Your task to perform on an android device: turn smart compose on in the gmail app Image 0: 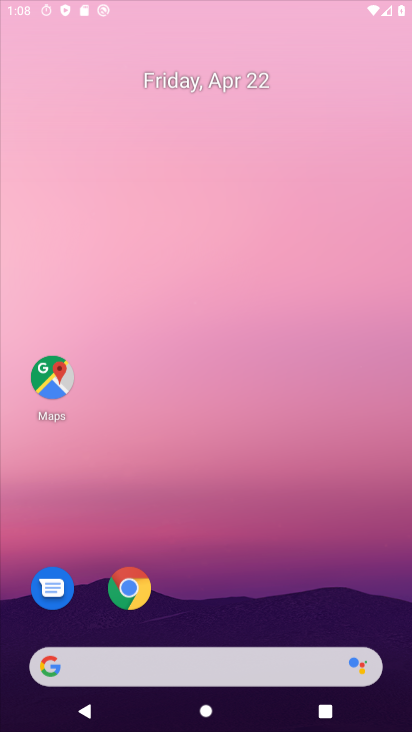
Step 0: click (325, 139)
Your task to perform on an android device: turn smart compose on in the gmail app Image 1: 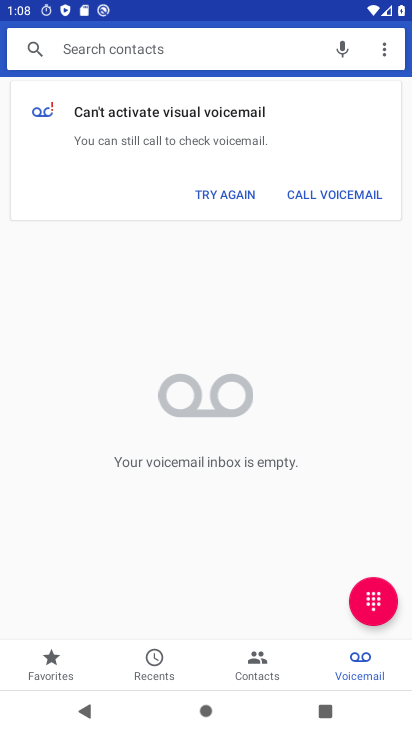
Step 1: press home button
Your task to perform on an android device: turn smart compose on in the gmail app Image 2: 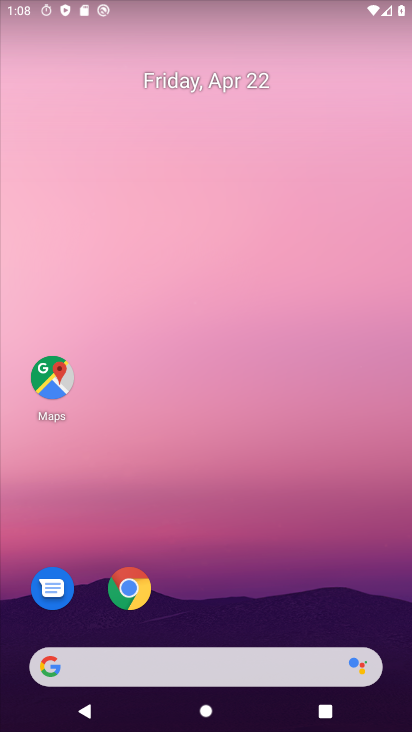
Step 2: drag from (358, 592) to (312, 117)
Your task to perform on an android device: turn smart compose on in the gmail app Image 3: 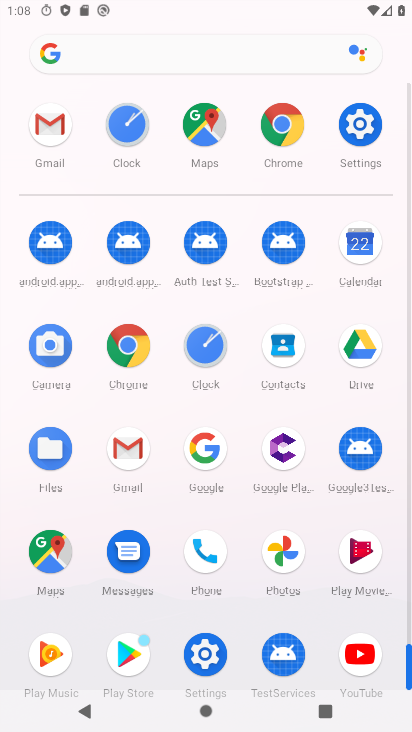
Step 3: click (139, 465)
Your task to perform on an android device: turn smart compose on in the gmail app Image 4: 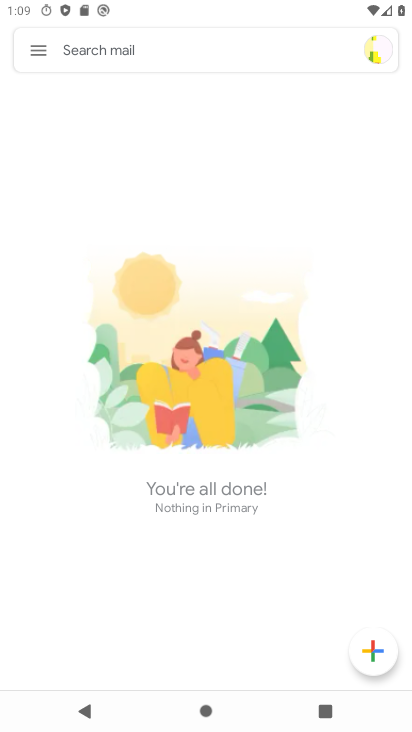
Step 4: click (36, 58)
Your task to perform on an android device: turn smart compose on in the gmail app Image 5: 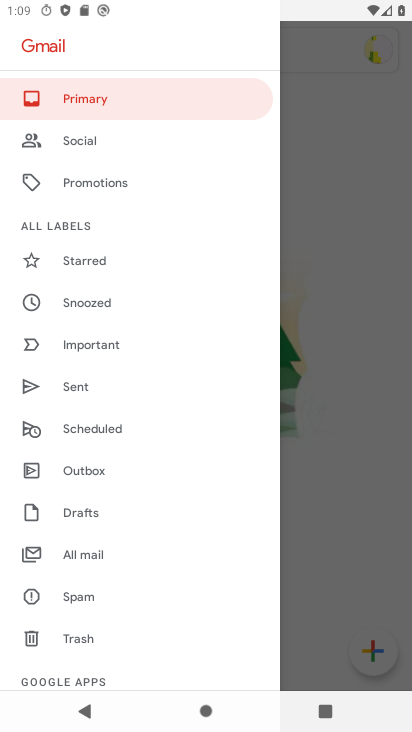
Step 5: drag from (98, 601) to (113, 304)
Your task to perform on an android device: turn smart compose on in the gmail app Image 6: 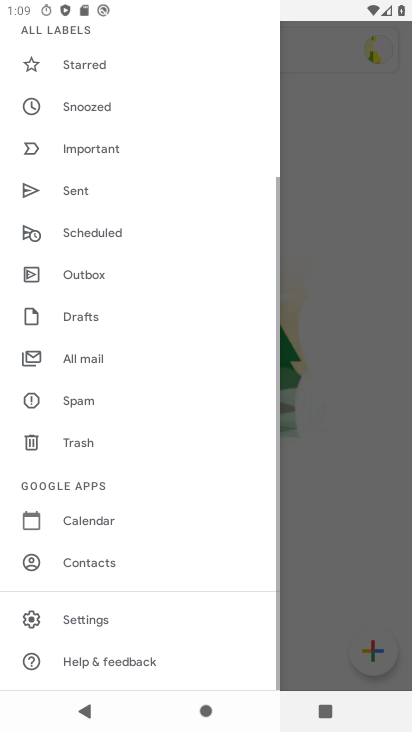
Step 6: click (77, 654)
Your task to perform on an android device: turn smart compose on in the gmail app Image 7: 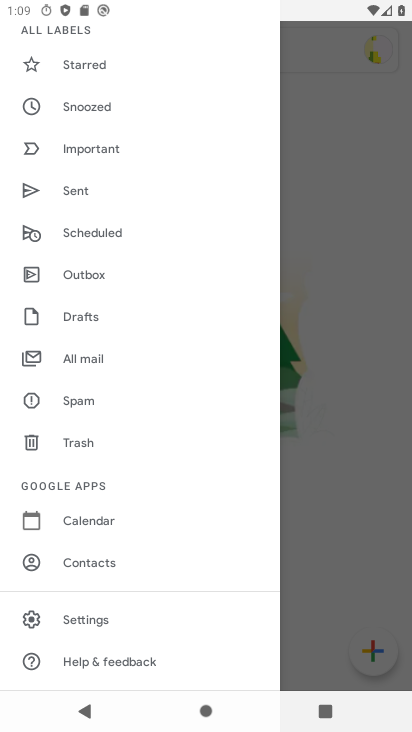
Step 7: click (81, 624)
Your task to perform on an android device: turn smart compose on in the gmail app Image 8: 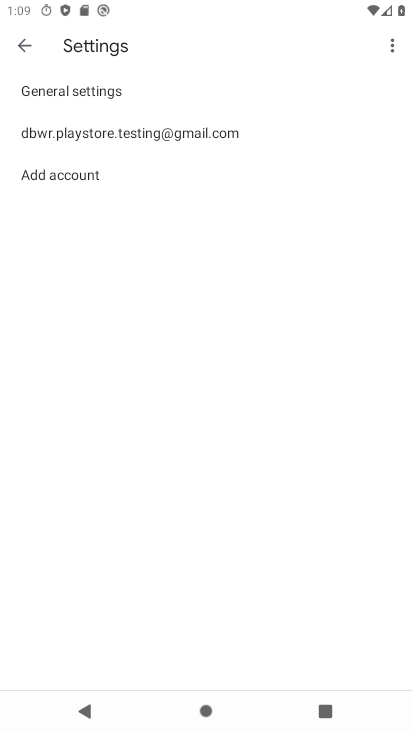
Step 8: click (88, 131)
Your task to perform on an android device: turn smart compose on in the gmail app Image 9: 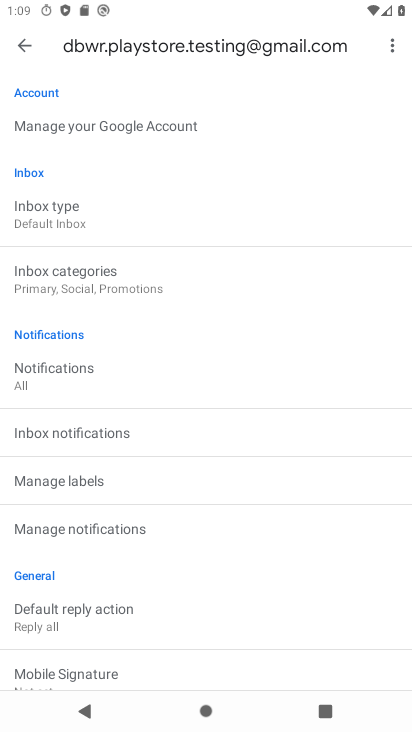
Step 9: task complete